Your task to perform on an android device: Toggle the flashlight Image 0: 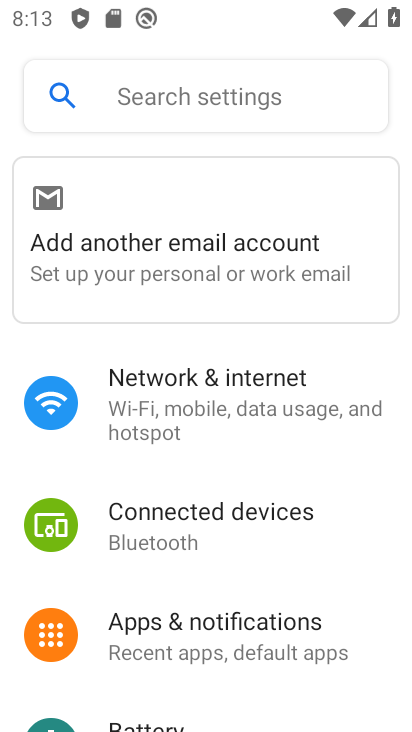
Step 0: click (170, 97)
Your task to perform on an android device: Toggle the flashlight Image 1: 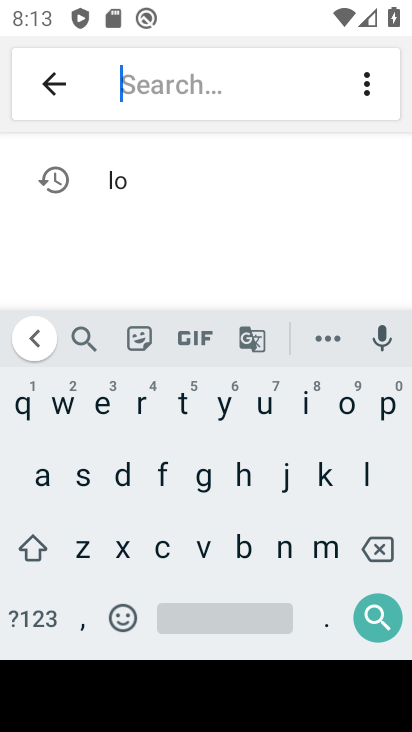
Step 1: click (168, 460)
Your task to perform on an android device: Toggle the flashlight Image 2: 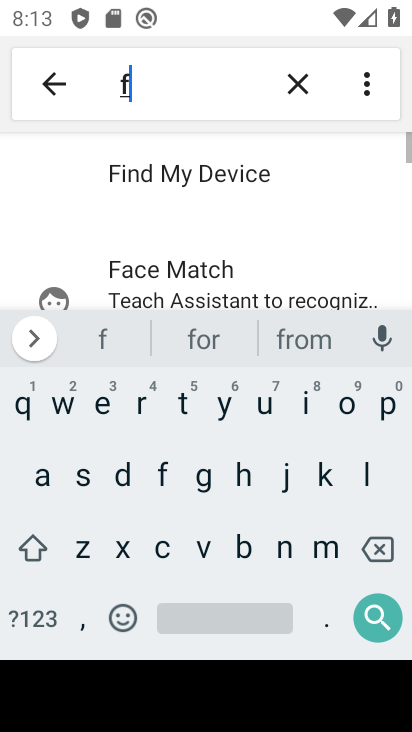
Step 2: click (369, 483)
Your task to perform on an android device: Toggle the flashlight Image 3: 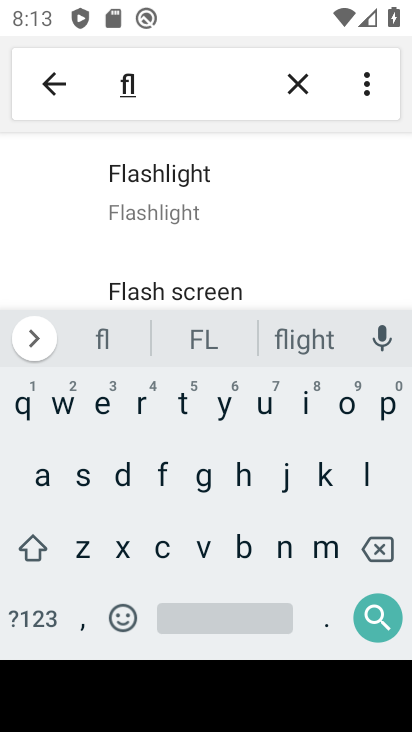
Step 3: click (177, 169)
Your task to perform on an android device: Toggle the flashlight Image 4: 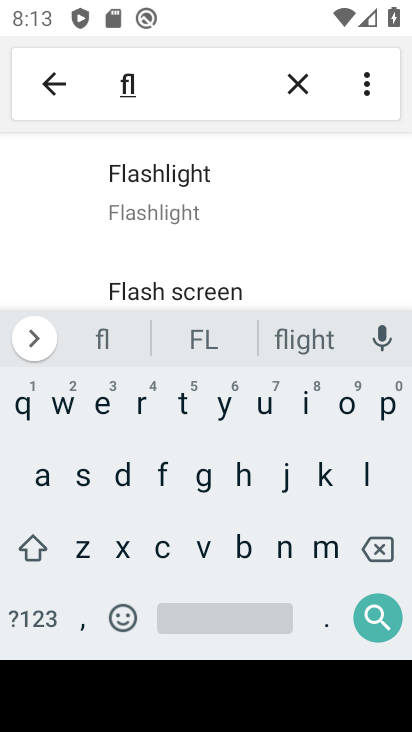
Step 4: task complete